Your task to perform on an android device: Clear the cart on amazon. Search for "jbl charge 4" on amazon, select the first entry, add it to the cart, then select checkout. Image 0: 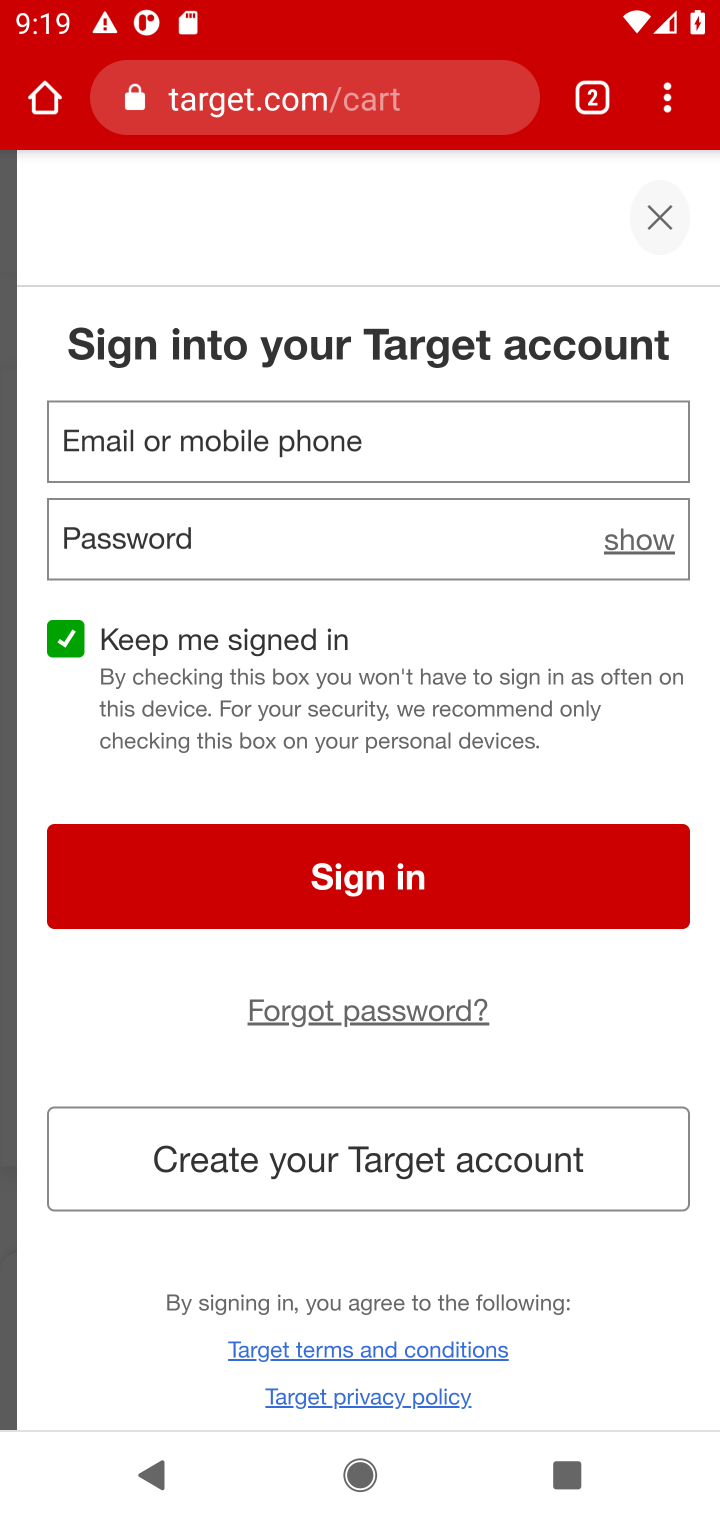
Step 0: click (300, 103)
Your task to perform on an android device: Clear the cart on amazon. Search for "jbl charge 4" on amazon, select the first entry, add it to the cart, then select checkout. Image 1: 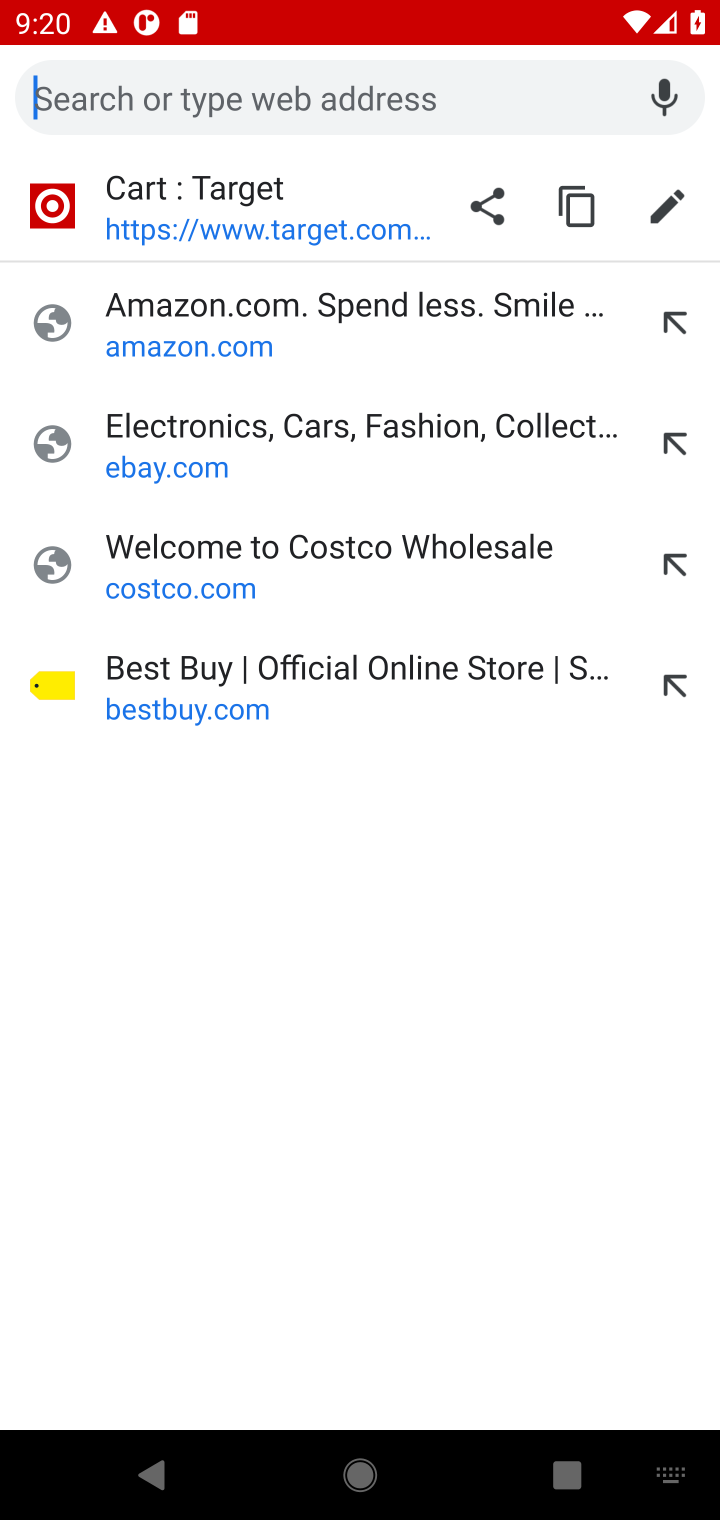
Step 1: click (141, 343)
Your task to perform on an android device: Clear the cart on amazon. Search for "jbl charge 4" on amazon, select the first entry, add it to the cart, then select checkout. Image 2: 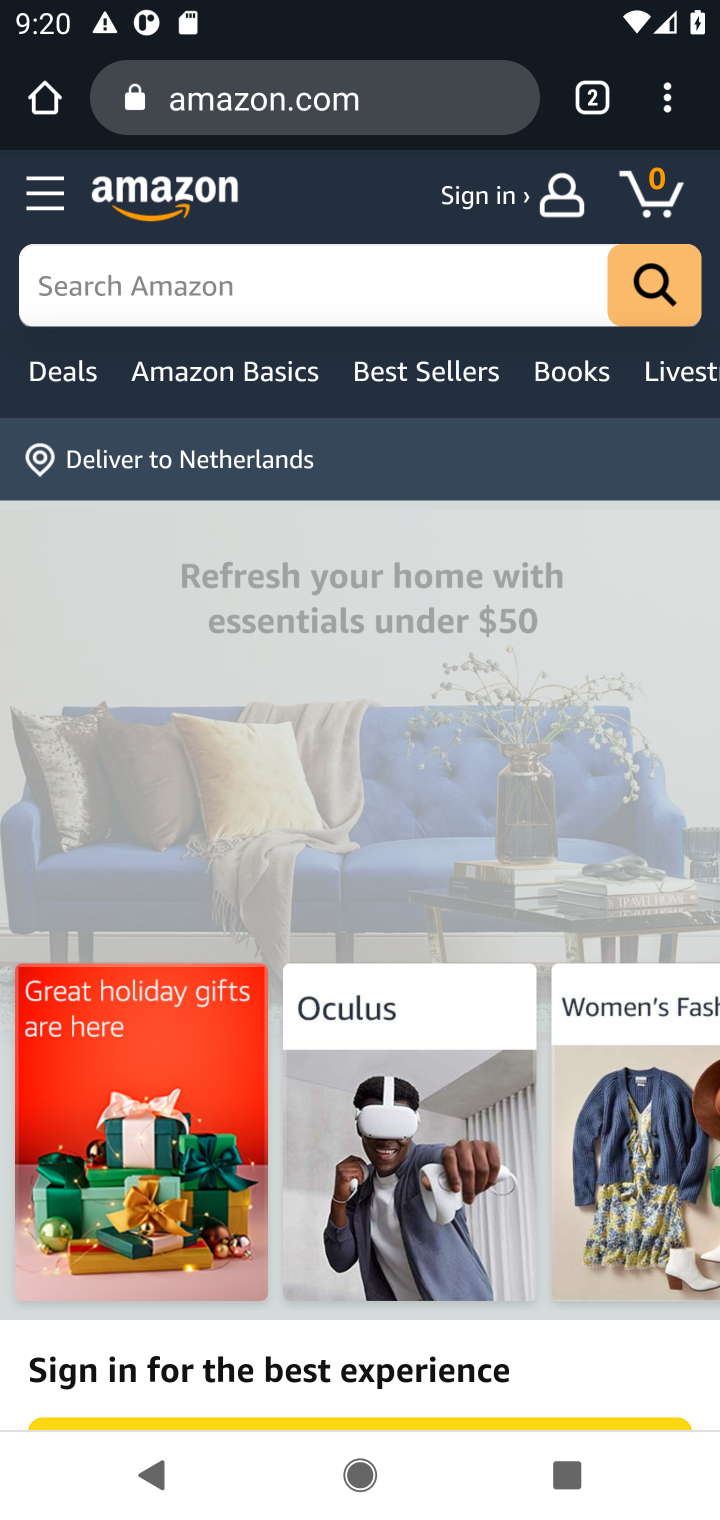
Step 2: click (675, 191)
Your task to perform on an android device: Clear the cart on amazon. Search for "jbl charge 4" on amazon, select the first entry, add it to the cart, then select checkout. Image 3: 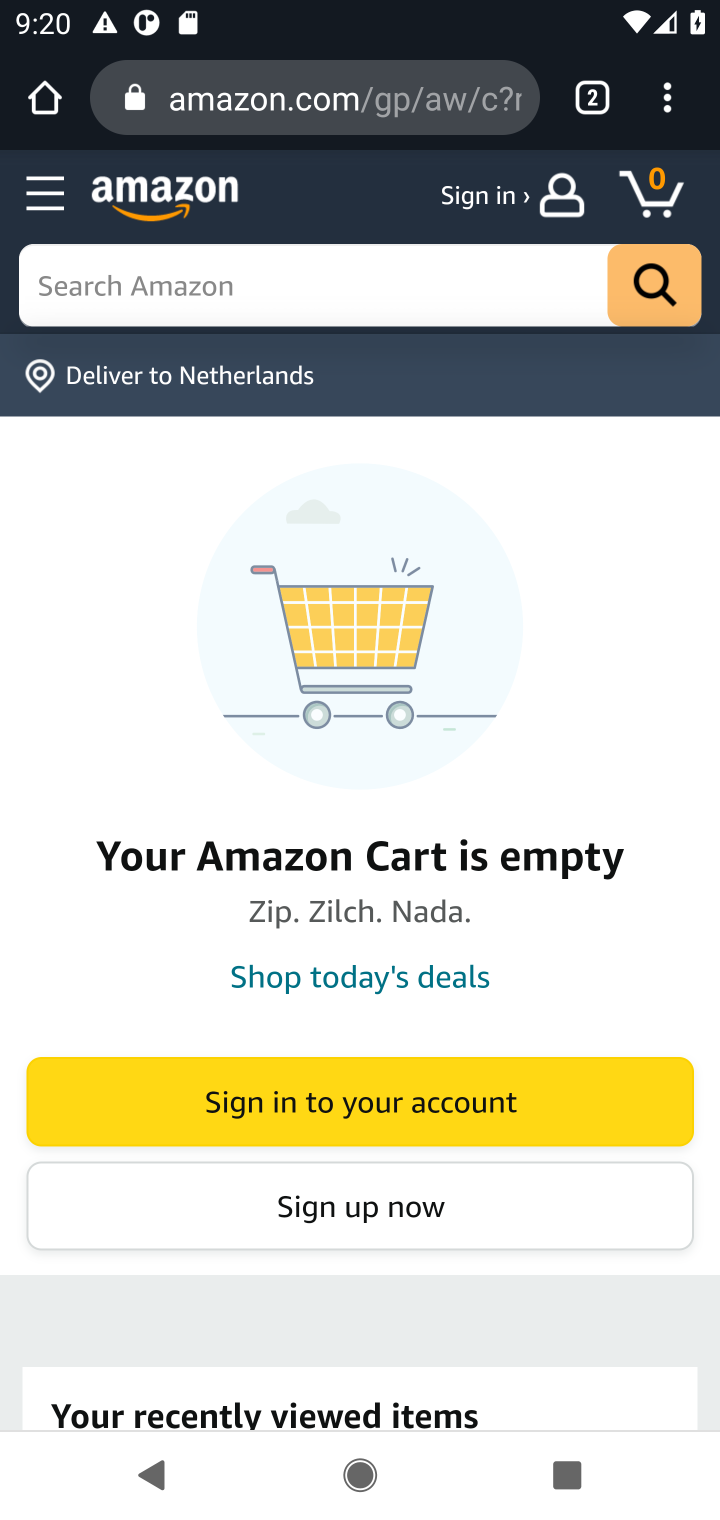
Step 3: click (136, 289)
Your task to perform on an android device: Clear the cart on amazon. Search for "jbl charge 4" on amazon, select the first entry, add it to the cart, then select checkout. Image 4: 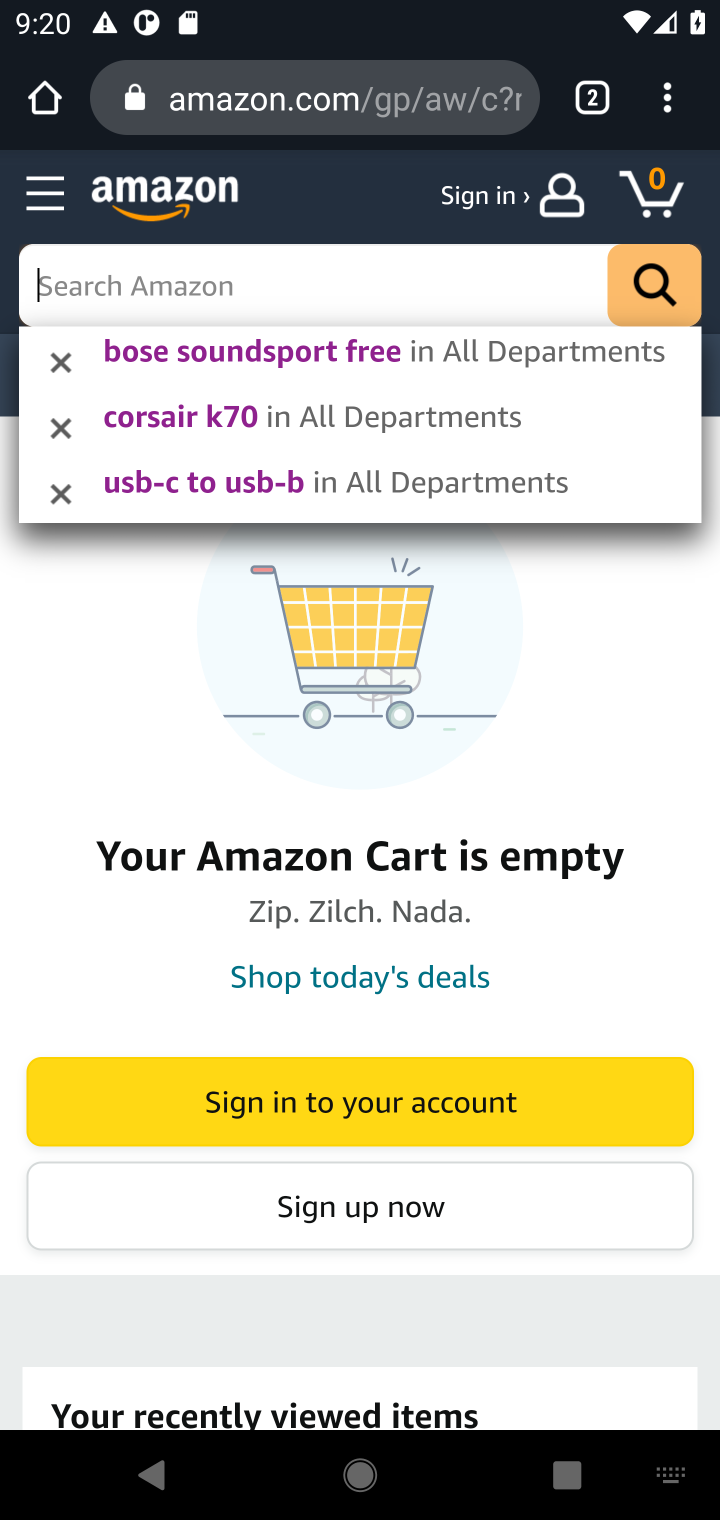
Step 4: type "jbl charge 4"
Your task to perform on an android device: Clear the cart on amazon. Search for "jbl charge 4" on amazon, select the first entry, add it to the cart, then select checkout. Image 5: 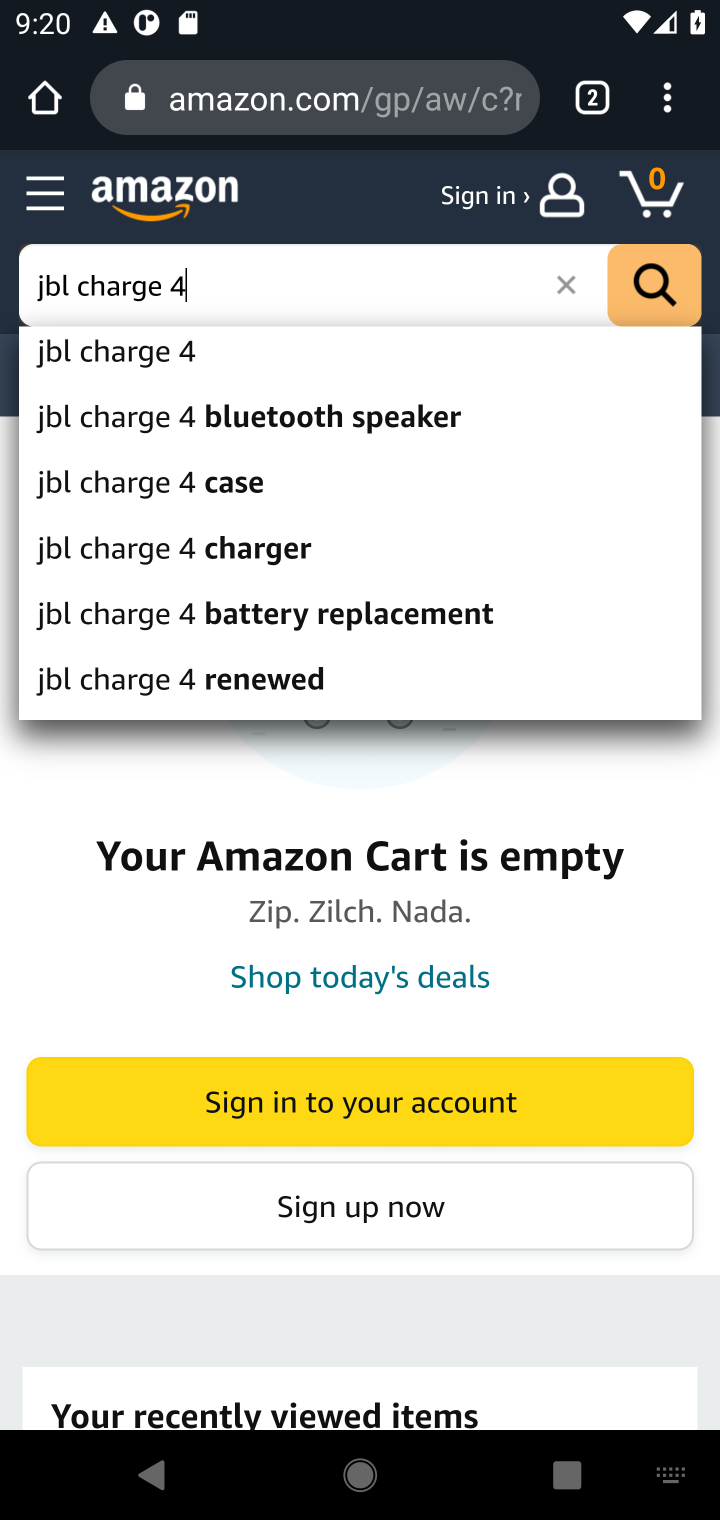
Step 5: click (140, 362)
Your task to perform on an android device: Clear the cart on amazon. Search for "jbl charge 4" on amazon, select the first entry, add it to the cart, then select checkout. Image 6: 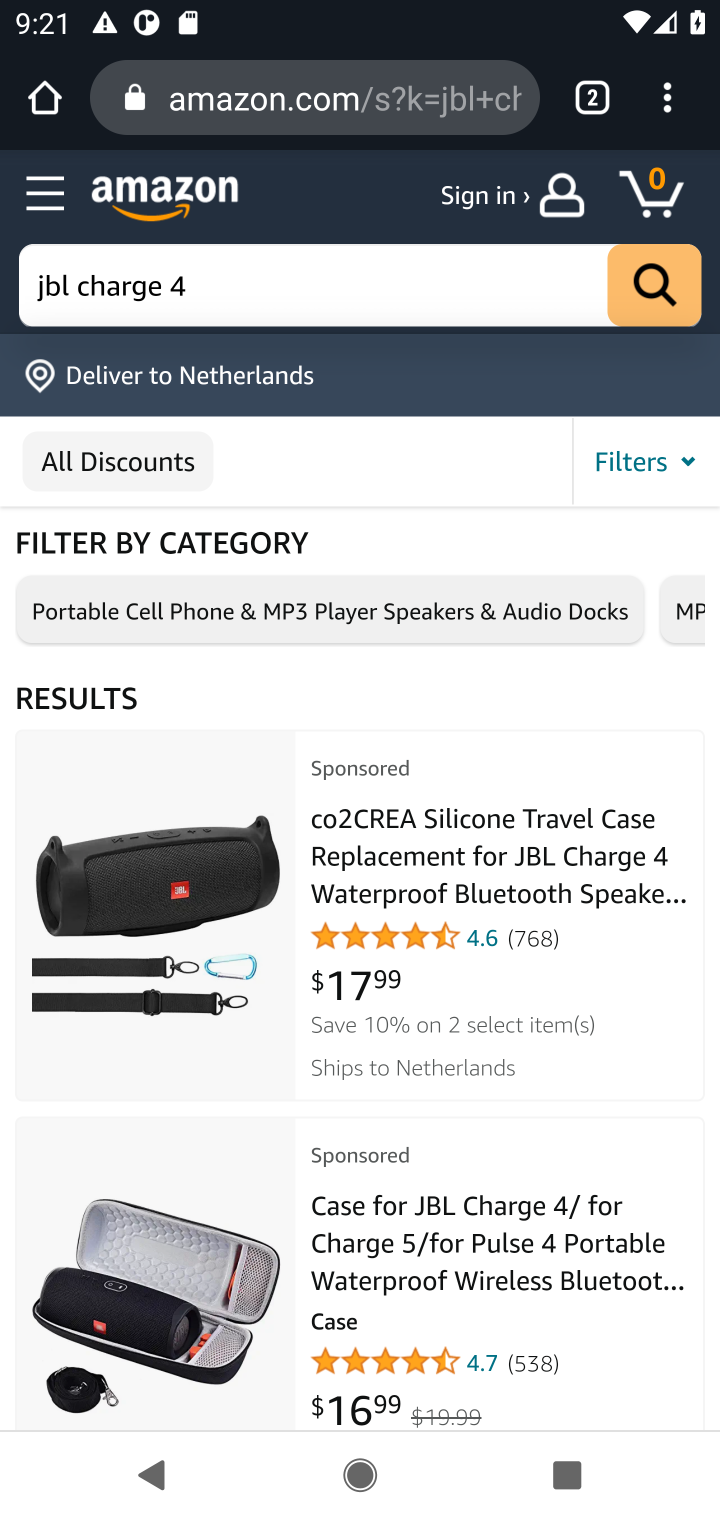
Step 6: click (452, 881)
Your task to perform on an android device: Clear the cart on amazon. Search for "jbl charge 4" on amazon, select the first entry, add it to the cart, then select checkout. Image 7: 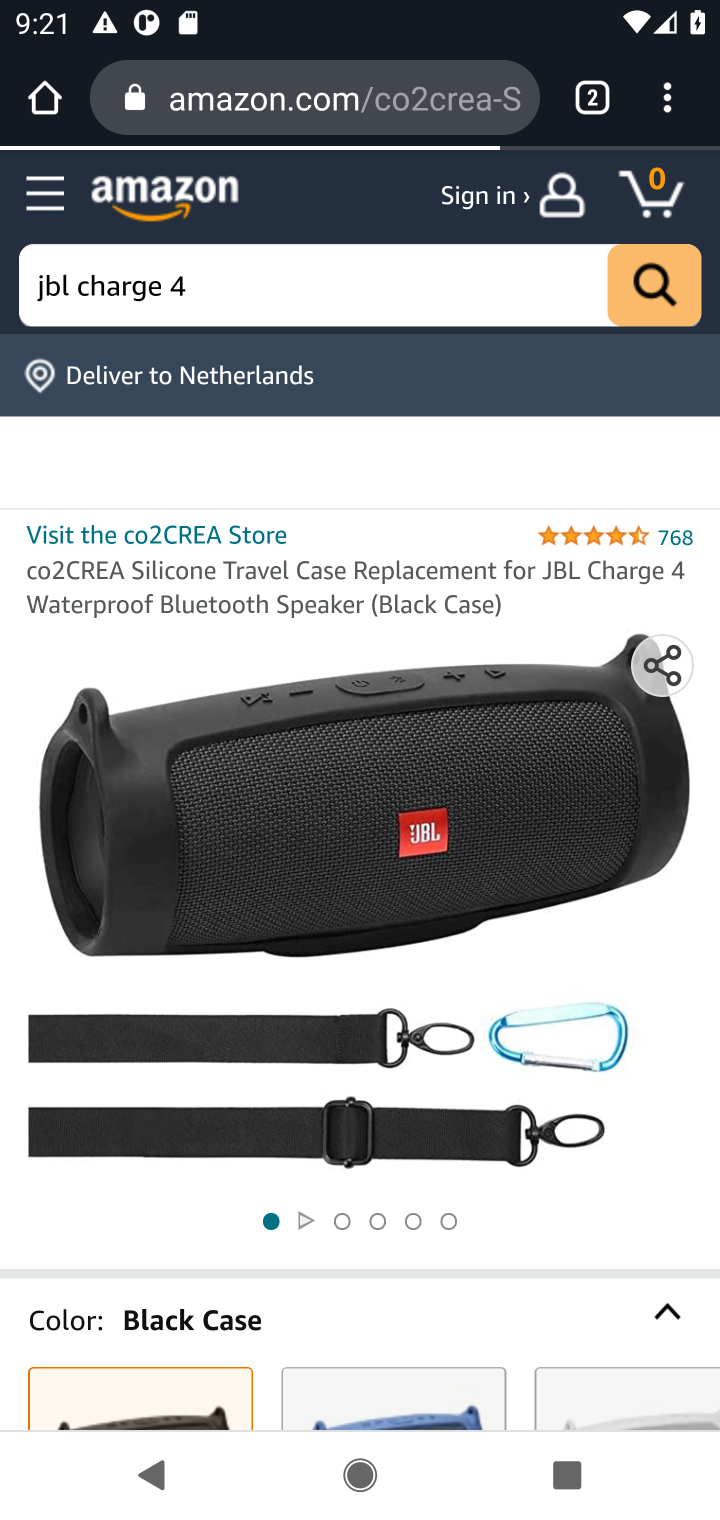
Step 7: drag from (345, 1162) to (418, 471)
Your task to perform on an android device: Clear the cart on amazon. Search for "jbl charge 4" on amazon, select the first entry, add it to the cart, then select checkout. Image 8: 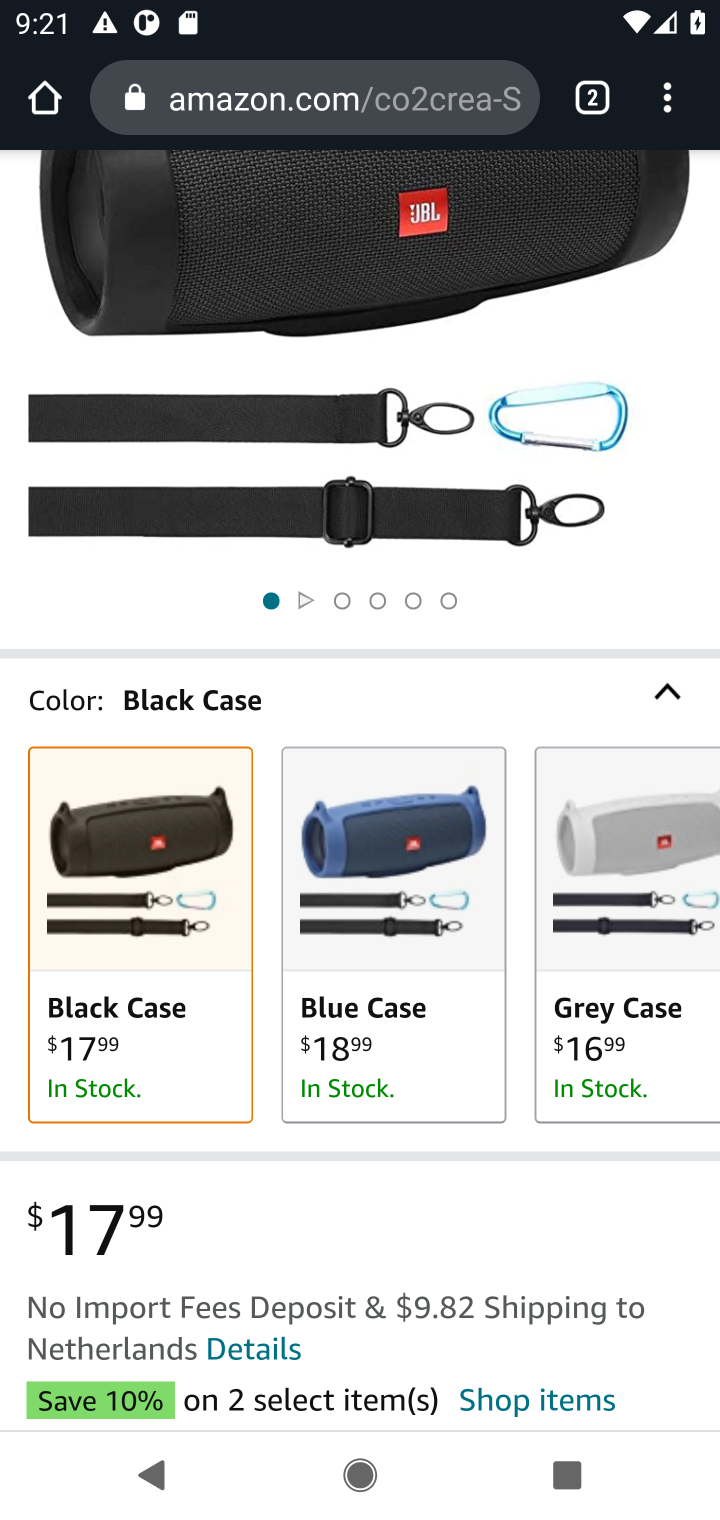
Step 8: drag from (365, 1022) to (394, 489)
Your task to perform on an android device: Clear the cart on amazon. Search for "jbl charge 4" on amazon, select the first entry, add it to the cart, then select checkout. Image 9: 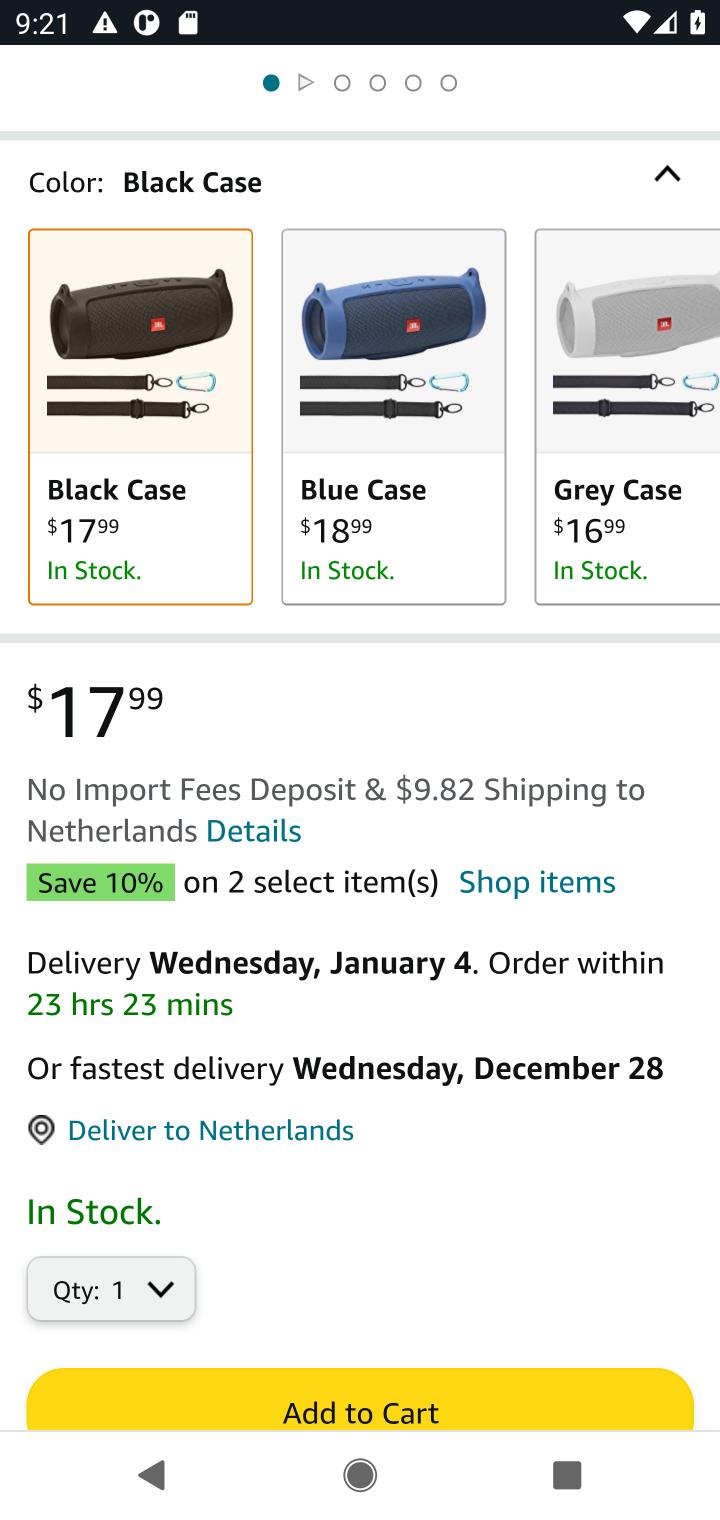
Step 9: drag from (322, 1148) to (351, 692)
Your task to perform on an android device: Clear the cart on amazon. Search for "jbl charge 4" on amazon, select the first entry, add it to the cart, then select checkout. Image 10: 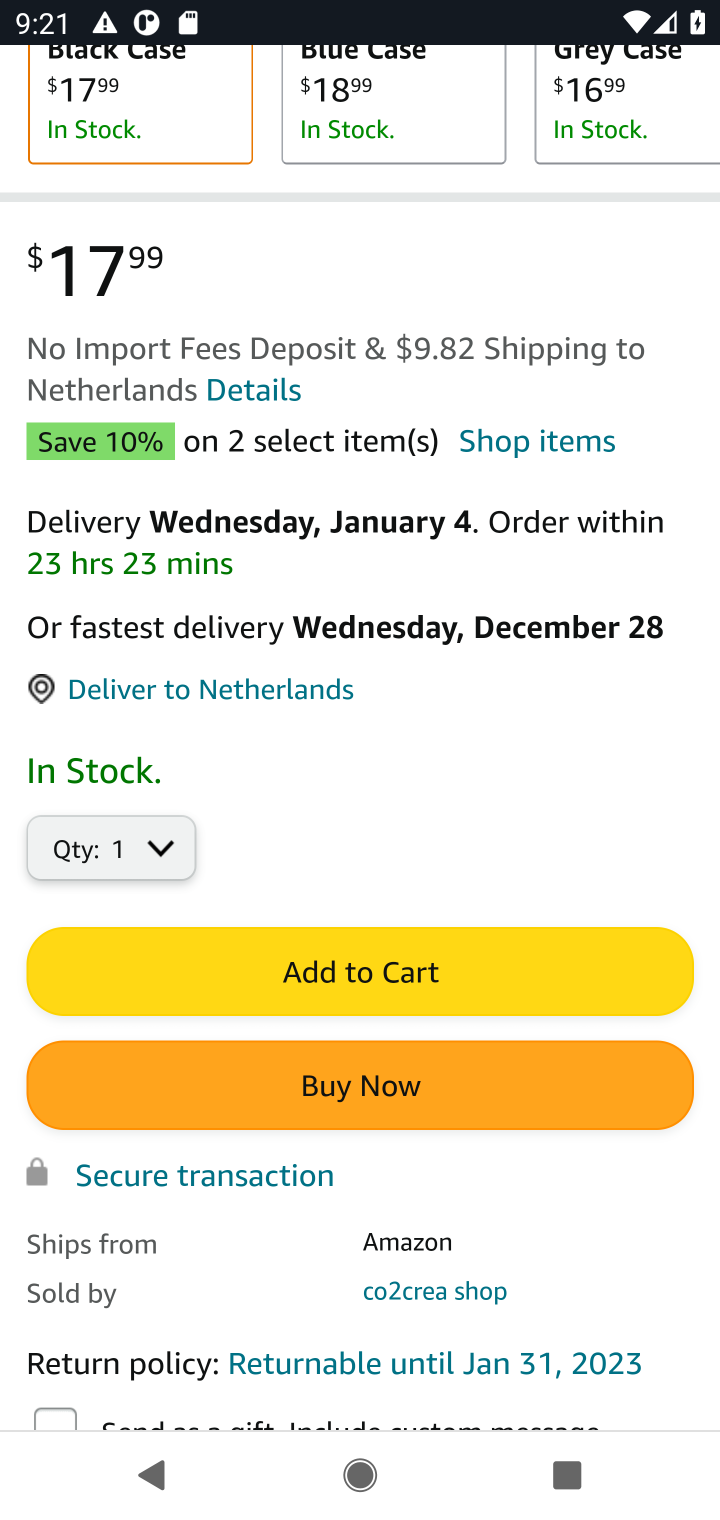
Step 10: click (316, 969)
Your task to perform on an android device: Clear the cart on amazon. Search for "jbl charge 4" on amazon, select the first entry, add it to the cart, then select checkout. Image 11: 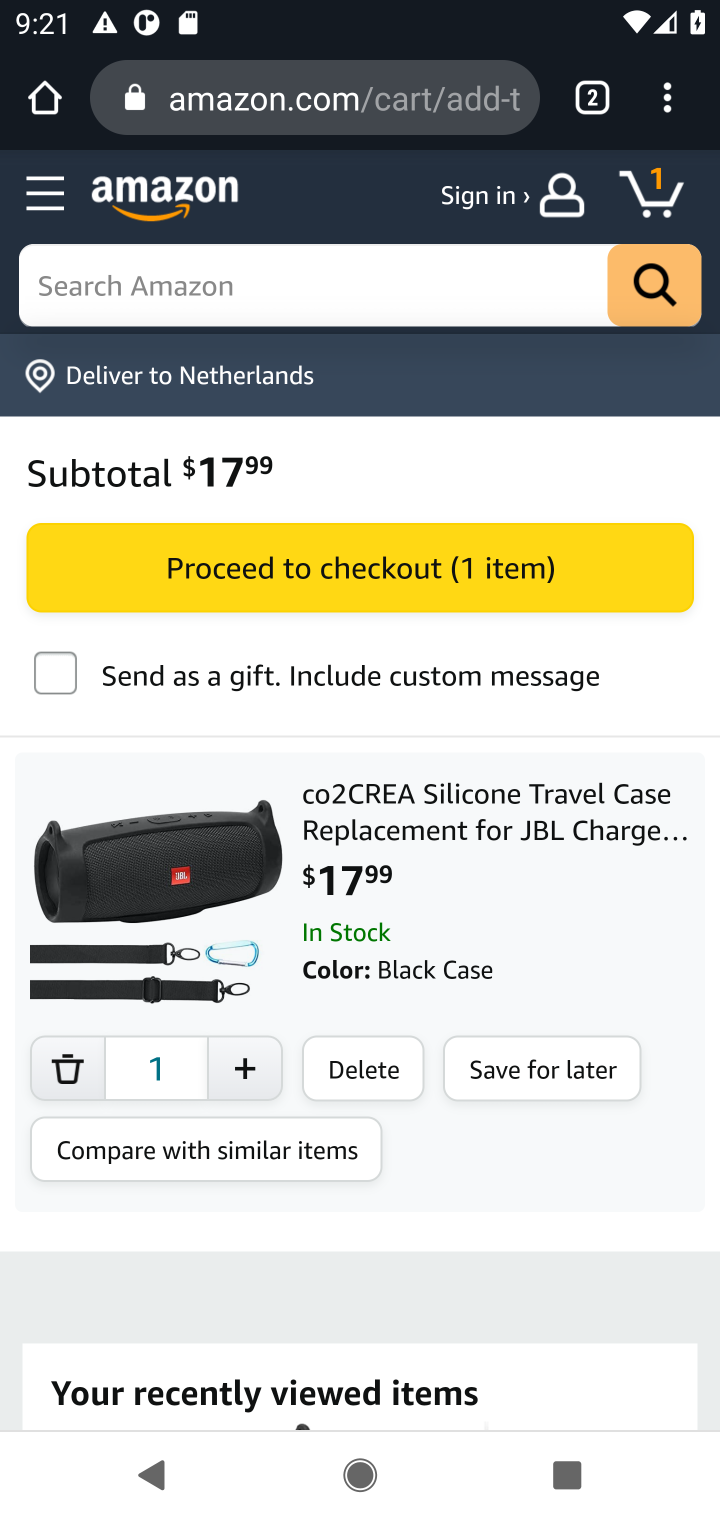
Step 11: click (297, 571)
Your task to perform on an android device: Clear the cart on amazon. Search for "jbl charge 4" on amazon, select the first entry, add it to the cart, then select checkout. Image 12: 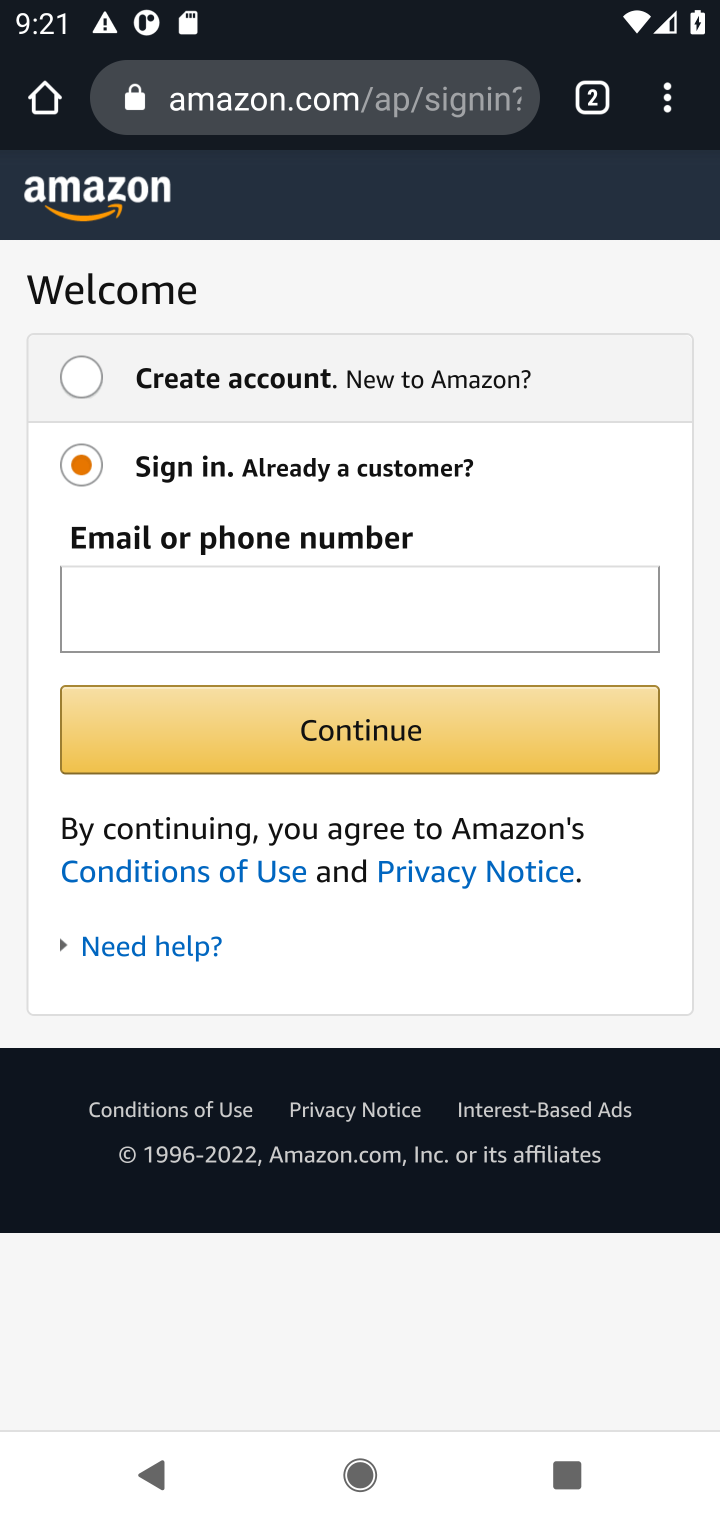
Step 12: task complete